Your task to perform on an android device: Open network settings Image 0: 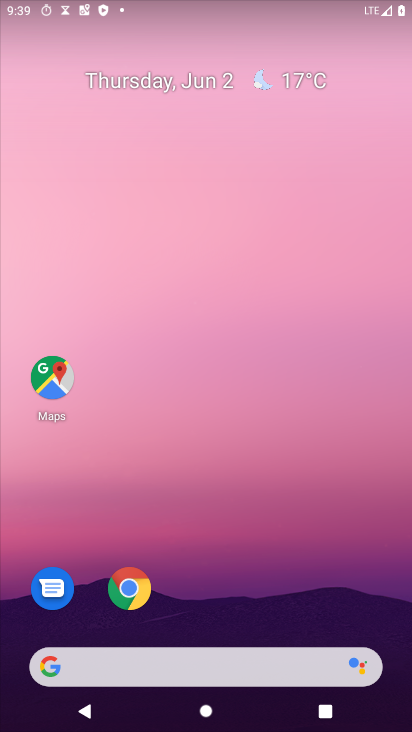
Step 0: drag from (220, 620) to (236, 160)
Your task to perform on an android device: Open network settings Image 1: 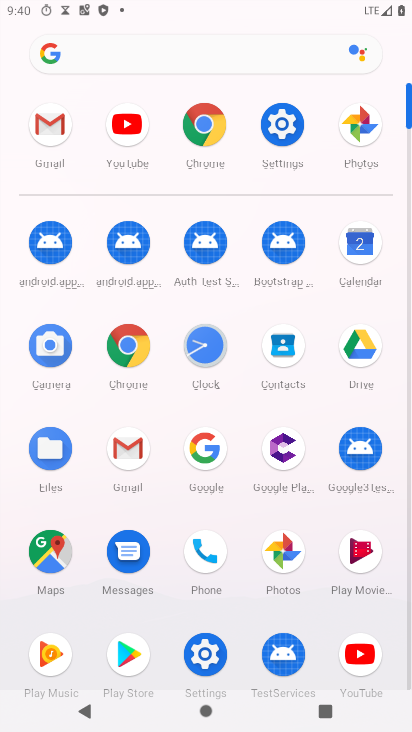
Step 1: click (275, 131)
Your task to perform on an android device: Open network settings Image 2: 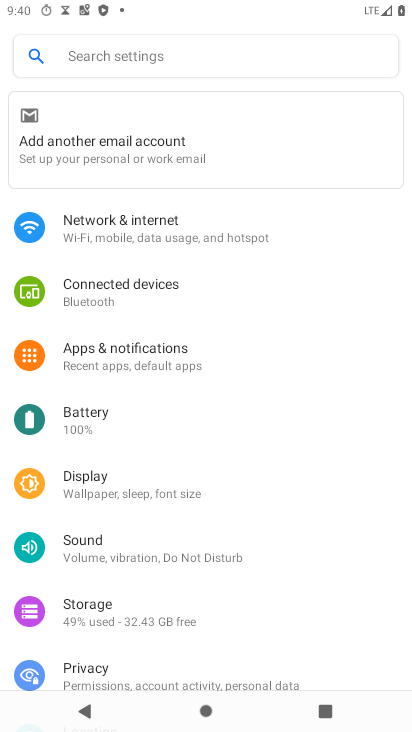
Step 2: click (164, 227)
Your task to perform on an android device: Open network settings Image 3: 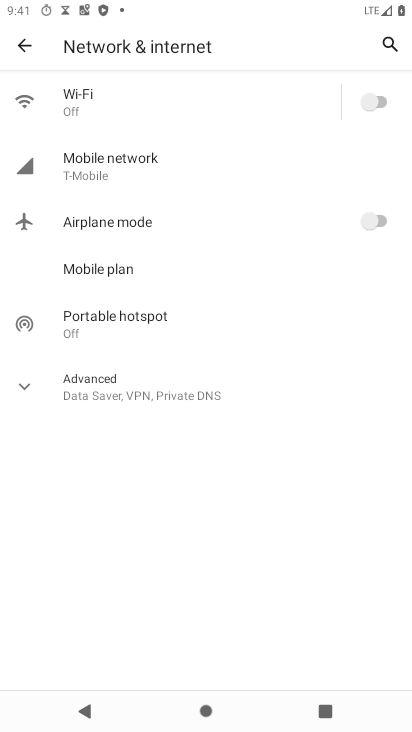
Step 3: task complete